Your task to perform on an android device: create a new album in the google photos Image 0: 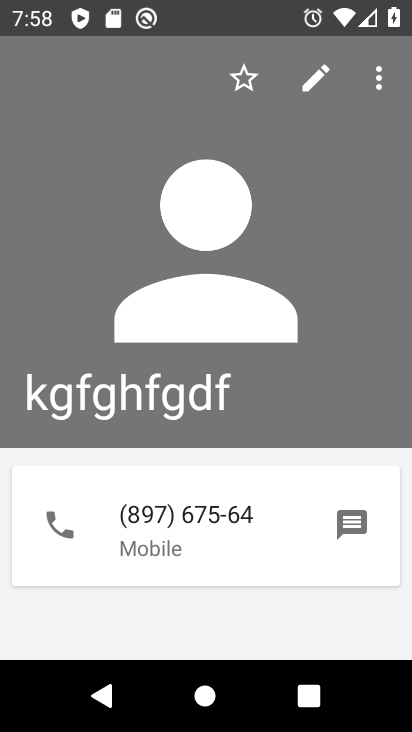
Step 0: press home button
Your task to perform on an android device: create a new album in the google photos Image 1: 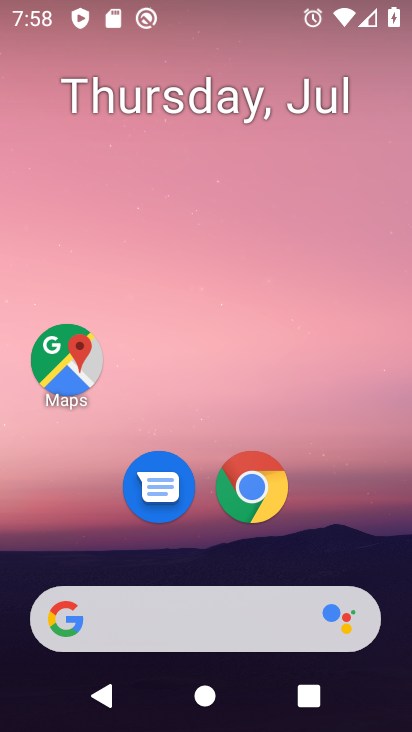
Step 1: drag from (230, 551) to (185, 177)
Your task to perform on an android device: create a new album in the google photos Image 2: 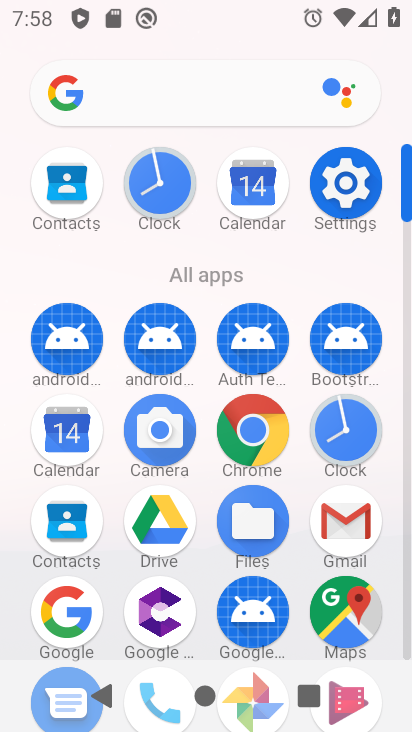
Step 2: click (75, 602)
Your task to perform on an android device: create a new album in the google photos Image 3: 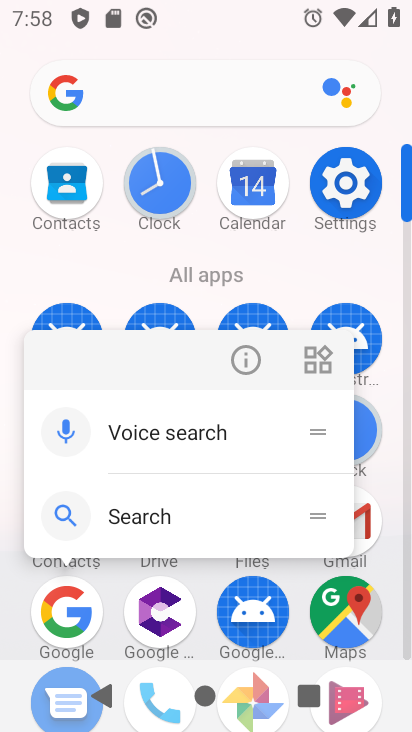
Step 3: click (28, 144)
Your task to perform on an android device: create a new album in the google photos Image 4: 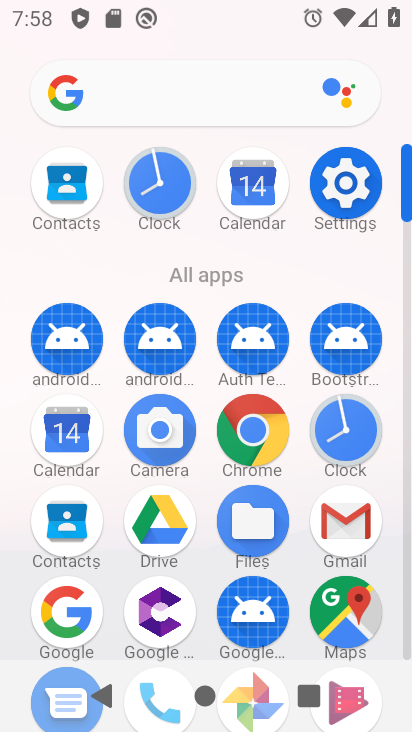
Step 4: drag from (221, 492) to (234, 204)
Your task to perform on an android device: create a new album in the google photos Image 5: 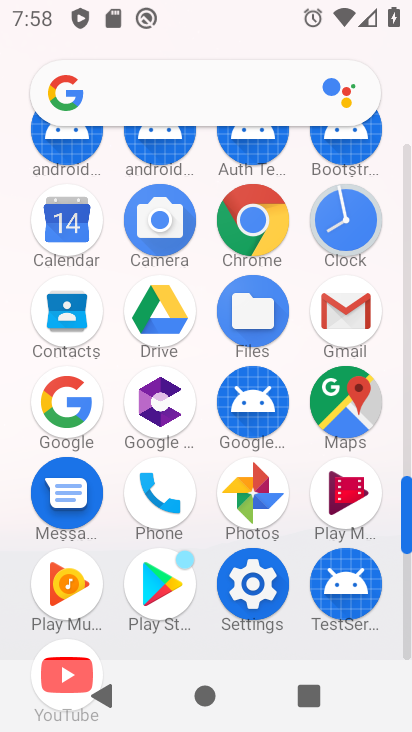
Step 5: click (281, 476)
Your task to perform on an android device: create a new album in the google photos Image 6: 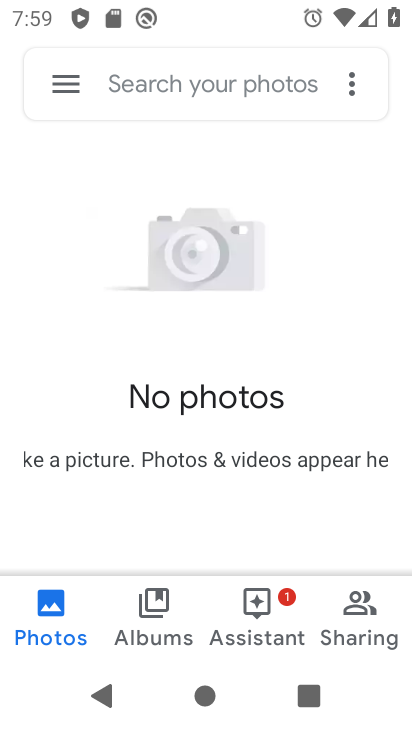
Step 6: click (161, 627)
Your task to perform on an android device: create a new album in the google photos Image 7: 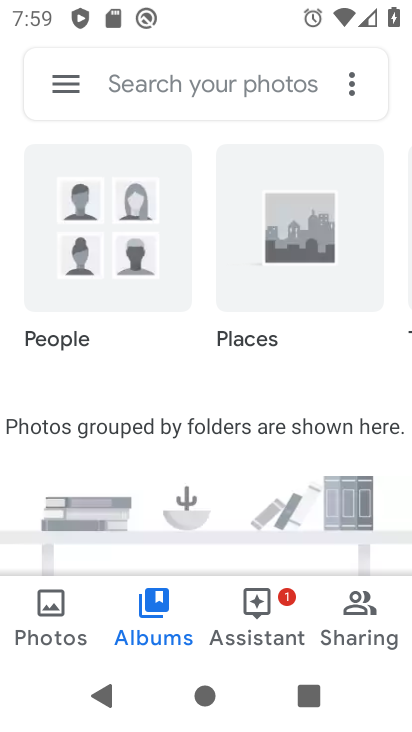
Step 7: task complete